Your task to perform on an android device: clear all cookies in the chrome app Image 0: 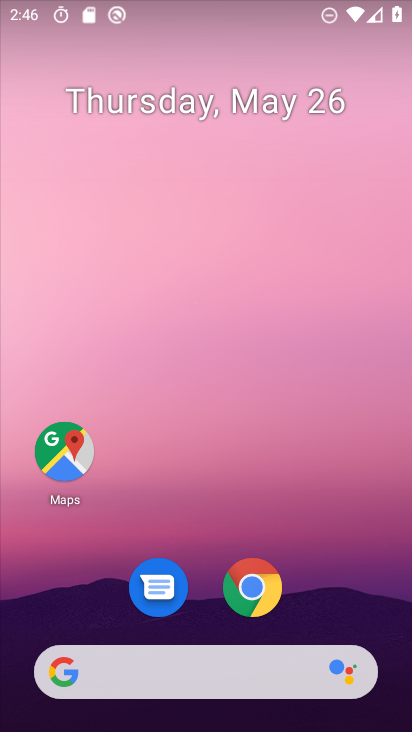
Step 0: click (250, 580)
Your task to perform on an android device: clear all cookies in the chrome app Image 1: 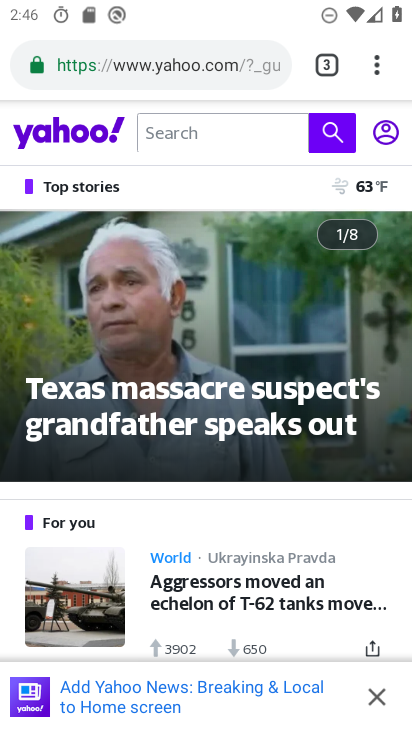
Step 1: click (381, 71)
Your task to perform on an android device: clear all cookies in the chrome app Image 2: 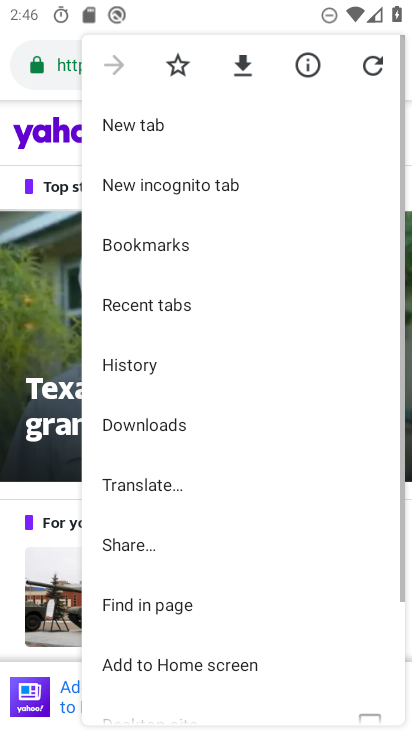
Step 2: drag from (206, 586) to (263, 147)
Your task to perform on an android device: clear all cookies in the chrome app Image 3: 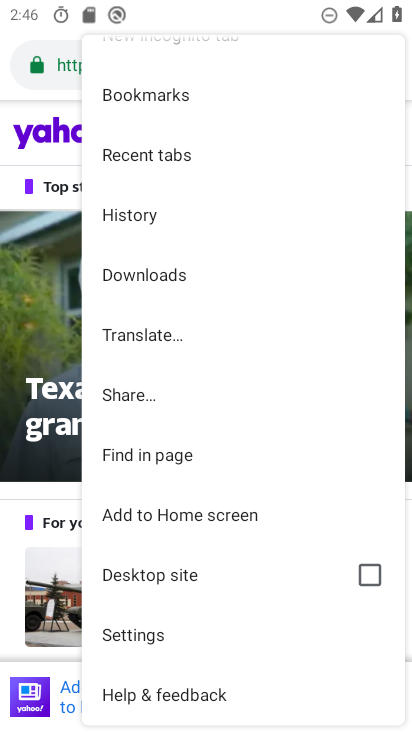
Step 3: click (182, 633)
Your task to perform on an android device: clear all cookies in the chrome app Image 4: 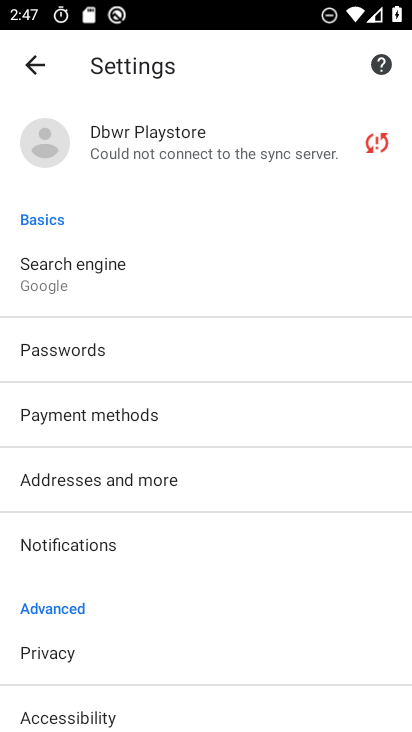
Step 4: press home button
Your task to perform on an android device: clear all cookies in the chrome app Image 5: 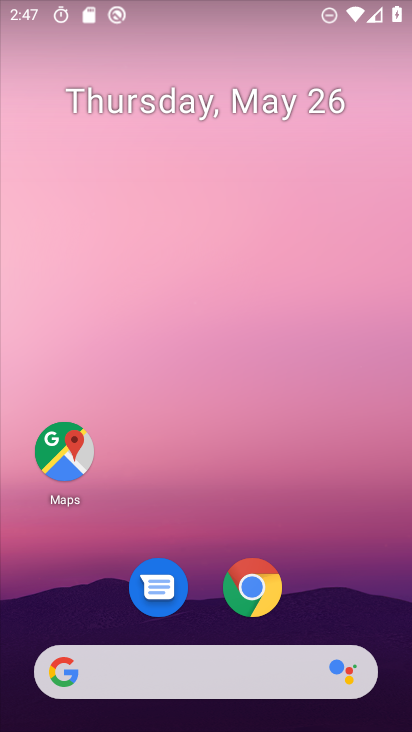
Step 5: click (249, 586)
Your task to perform on an android device: clear all cookies in the chrome app Image 6: 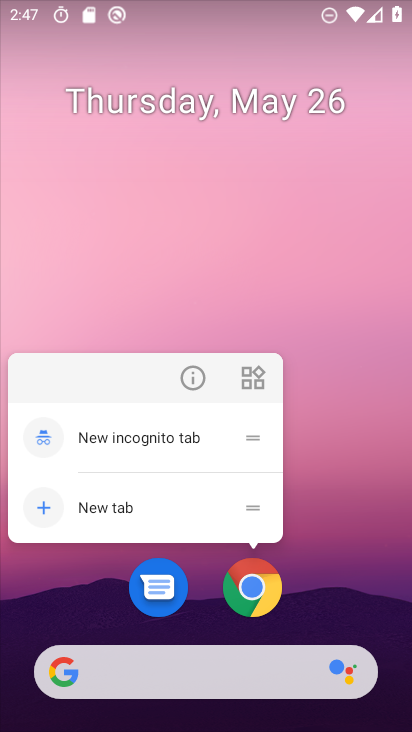
Step 6: click (249, 586)
Your task to perform on an android device: clear all cookies in the chrome app Image 7: 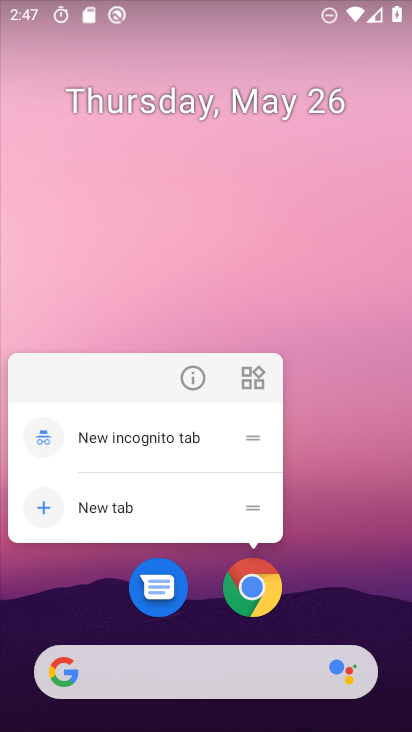
Step 7: click (256, 589)
Your task to perform on an android device: clear all cookies in the chrome app Image 8: 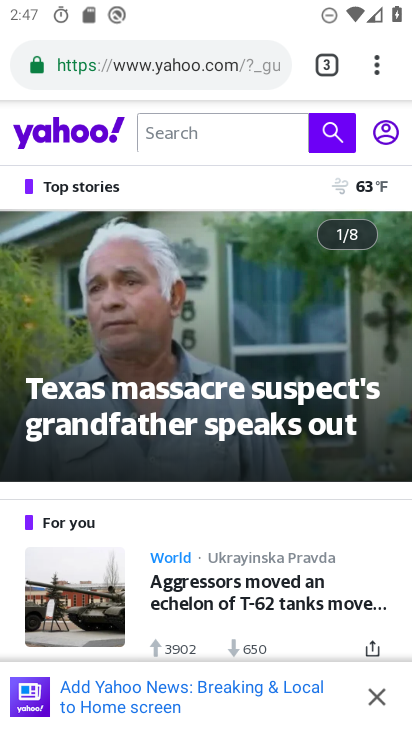
Step 8: drag from (384, 61) to (215, 371)
Your task to perform on an android device: clear all cookies in the chrome app Image 9: 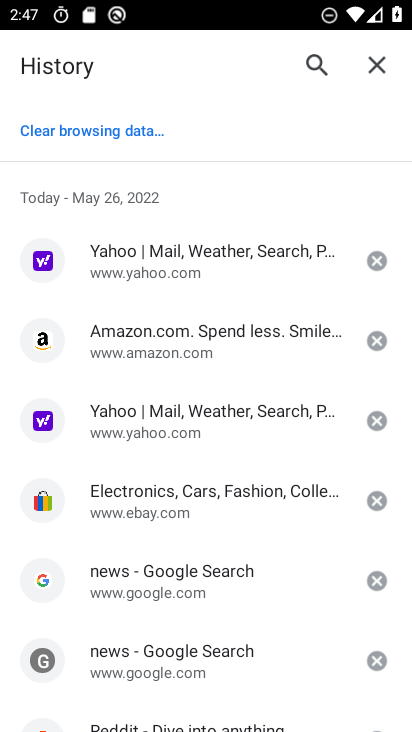
Step 9: click (110, 119)
Your task to perform on an android device: clear all cookies in the chrome app Image 10: 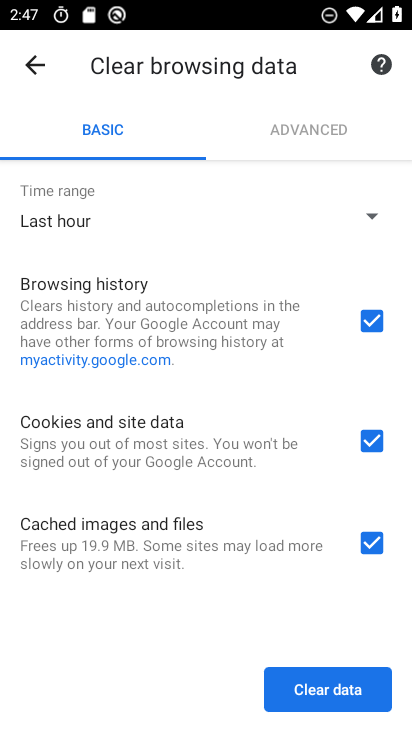
Step 10: click (315, 210)
Your task to perform on an android device: clear all cookies in the chrome app Image 11: 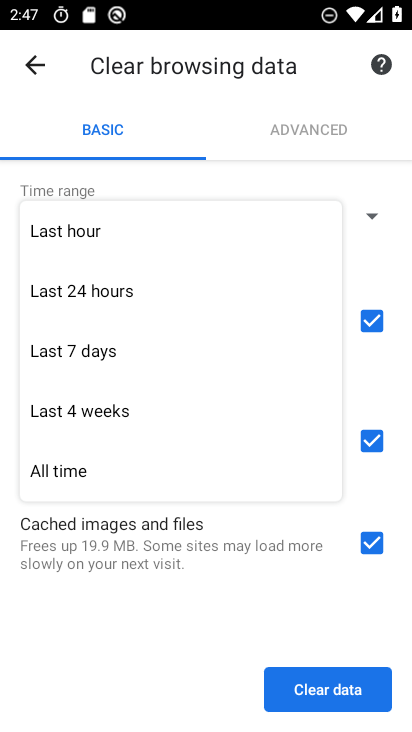
Step 11: click (82, 471)
Your task to perform on an android device: clear all cookies in the chrome app Image 12: 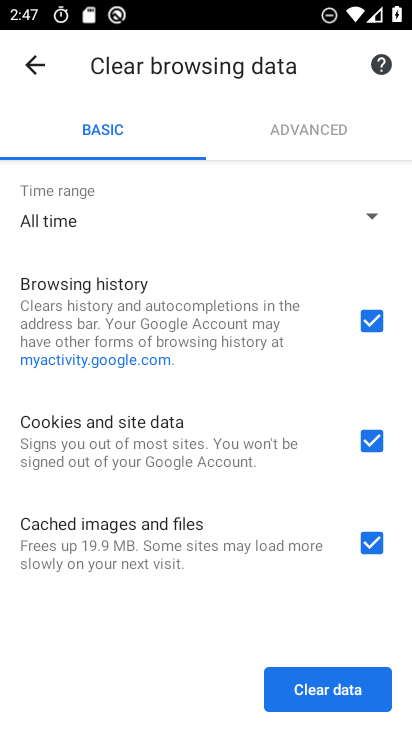
Step 12: click (313, 676)
Your task to perform on an android device: clear all cookies in the chrome app Image 13: 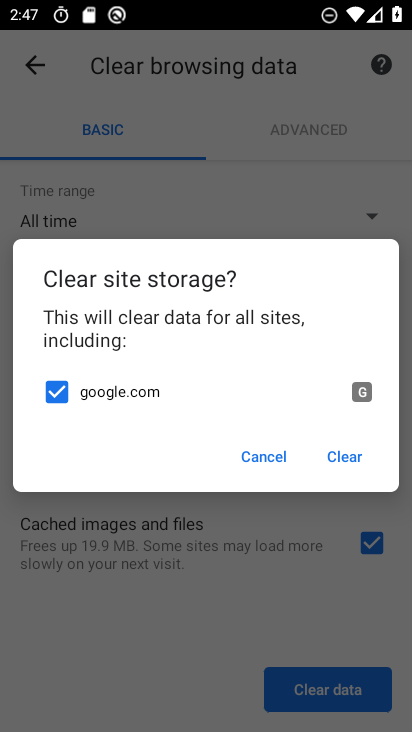
Step 13: click (355, 453)
Your task to perform on an android device: clear all cookies in the chrome app Image 14: 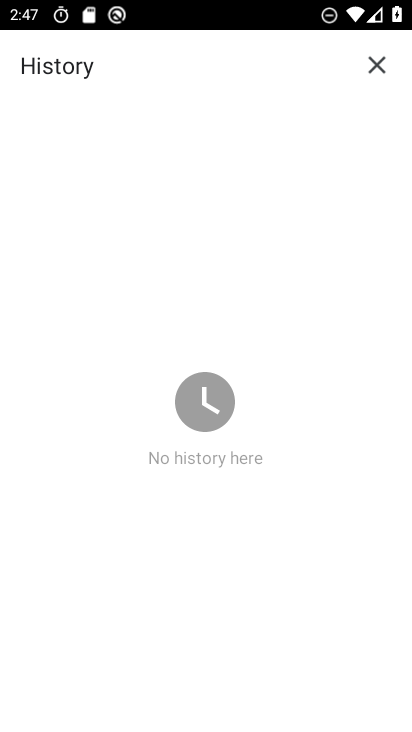
Step 14: task complete